Your task to perform on an android device: Go to Reddit.com Image 0: 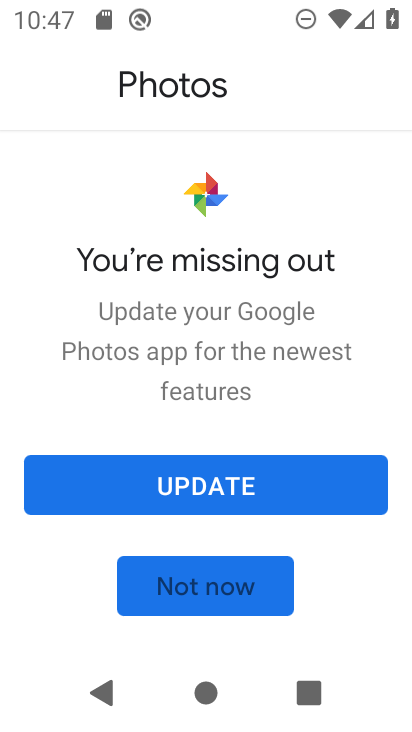
Step 0: press home button
Your task to perform on an android device: Go to Reddit.com Image 1: 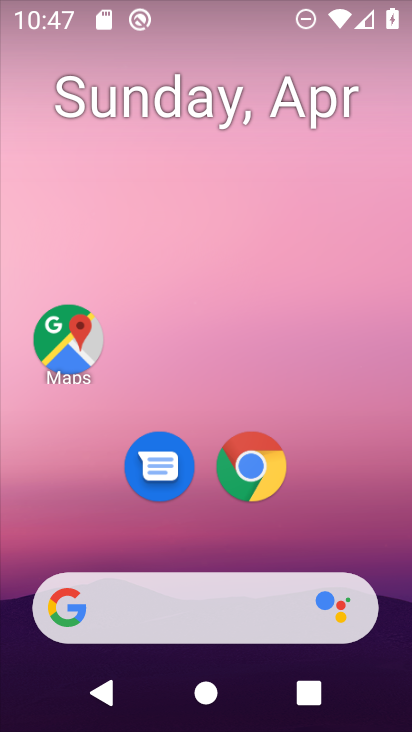
Step 1: drag from (357, 510) to (371, 104)
Your task to perform on an android device: Go to Reddit.com Image 2: 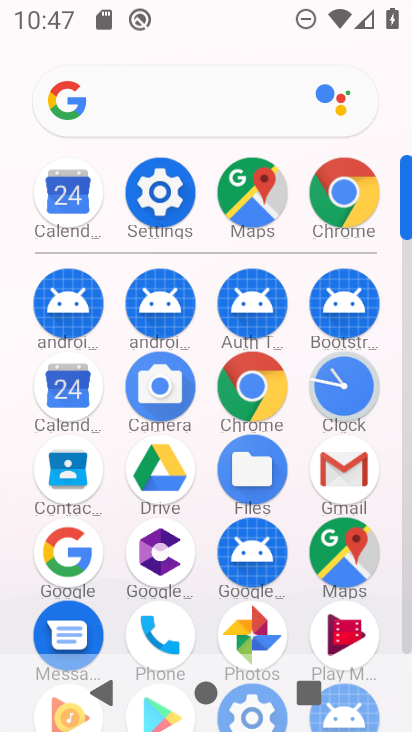
Step 2: click (358, 195)
Your task to perform on an android device: Go to Reddit.com Image 3: 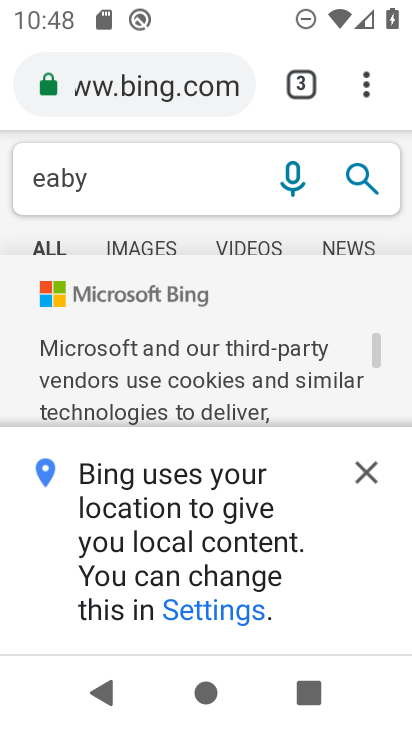
Step 3: click (214, 94)
Your task to perform on an android device: Go to Reddit.com Image 4: 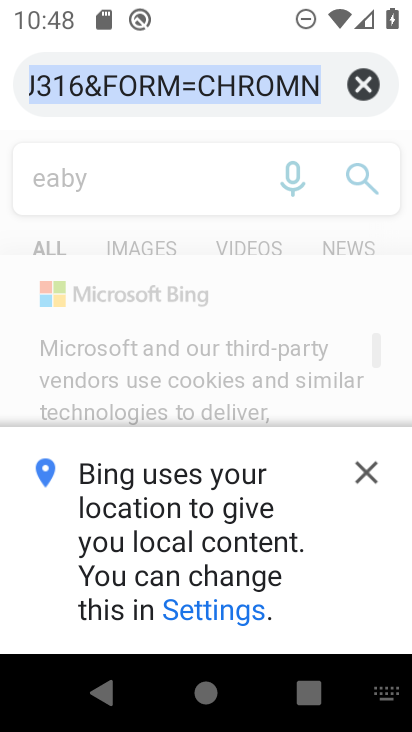
Step 4: click (363, 90)
Your task to perform on an android device: Go to Reddit.com Image 5: 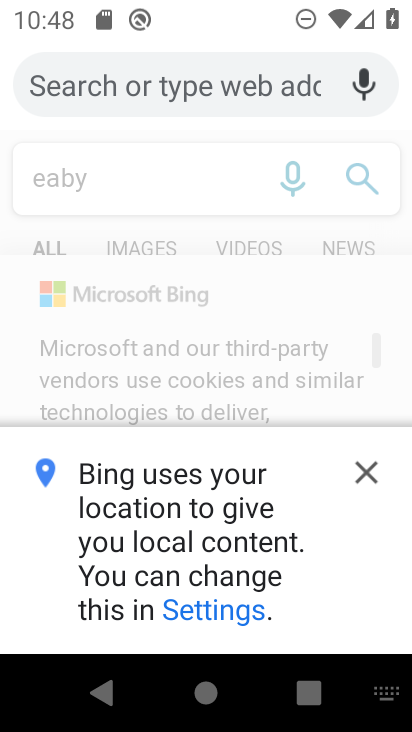
Step 5: click (240, 84)
Your task to perform on an android device: Go to Reddit.com Image 6: 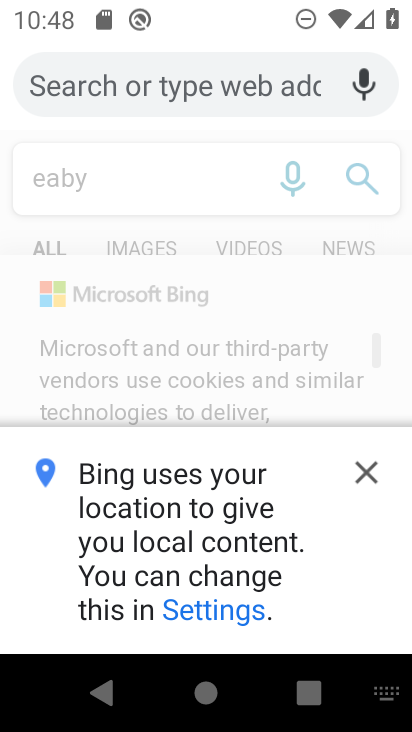
Step 6: type "reddit .com"
Your task to perform on an android device: Go to Reddit.com Image 7: 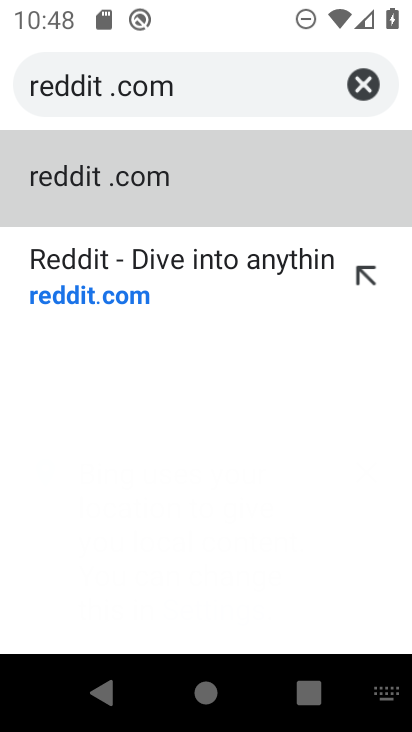
Step 7: click (125, 191)
Your task to perform on an android device: Go to Reddit.com Image 8: 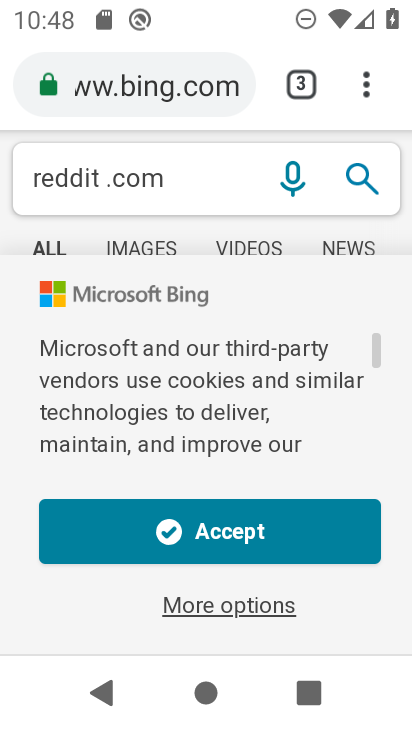
Step 8: task complete